Your task to perform on an android device: set default search engine in the chrome app Image 0: 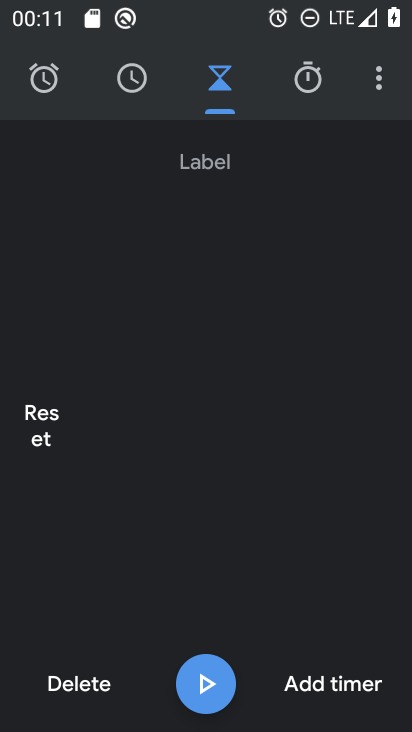
Step 0: press home button
Your task to perform on an android device: set default search engine in the chrome app Image 1: 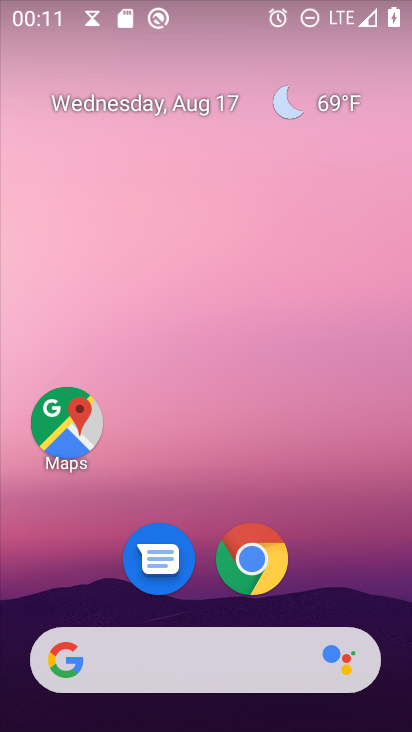
Step 1: click (254, 559)
Your task to perform on an android device: set default search engine in the chrome app Image 2: 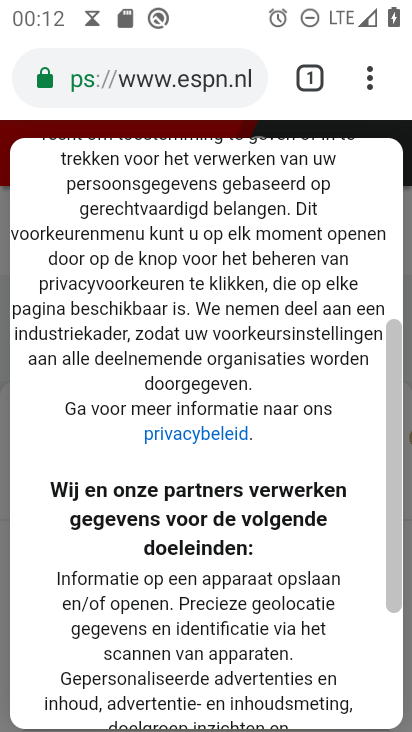
Step 2: click (378, 75)
Your task to perform on an android device: set default search engine in the chrome app Image 3: 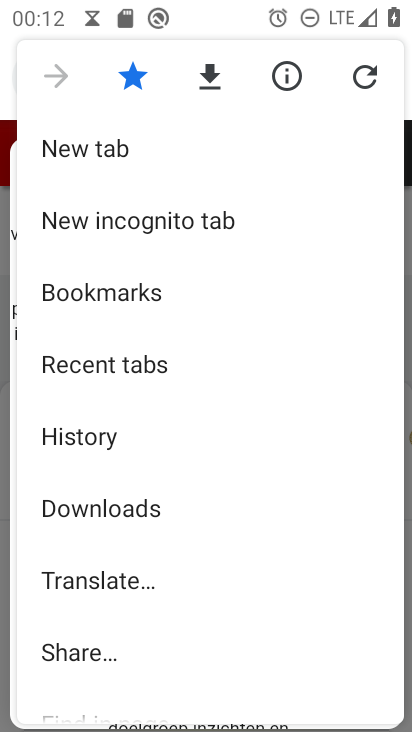
Step 3: drag from (128, 477) to (162, 410)
Your task to perform on an android device: set default search engine in the chrome app Image 4: 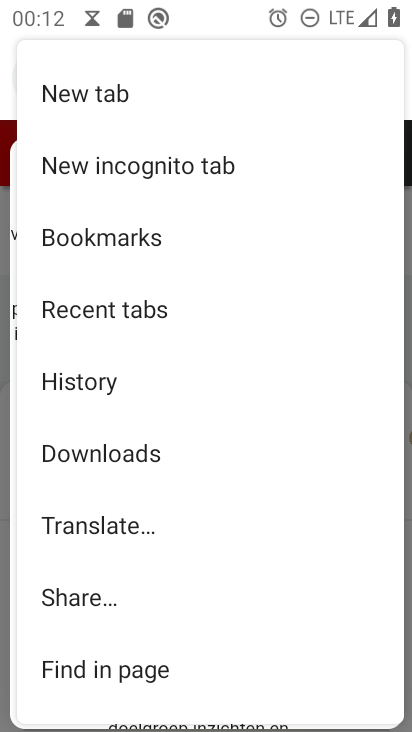
Step 4: drag from (138, 564) to (173, 493)
Your task to perform on an android device: set default search engine in the chrome app Image 5: 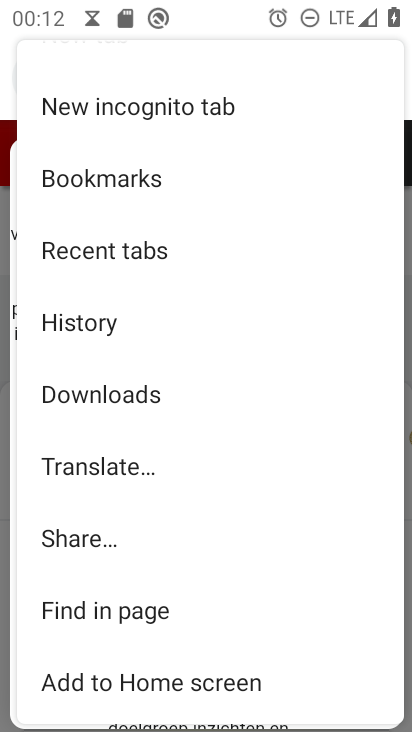
Step 5: drag from (141, 628) to (207, 531)
Your task to perform on an android device: set default search engine in the chrome app Image 6: 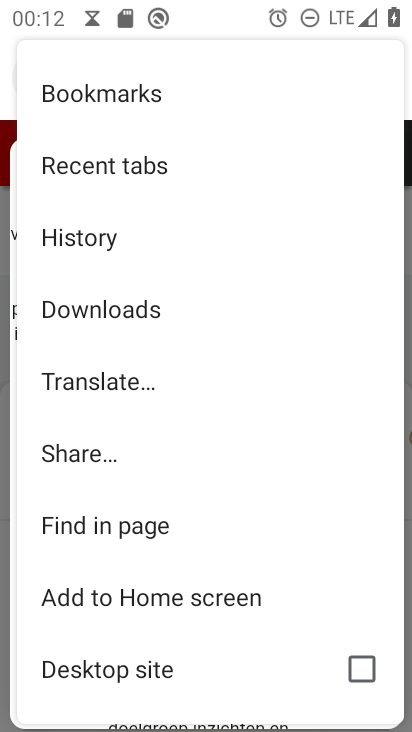
Step 6: drag from (171, 647) to (270, 510)
Your task to perform on an android device: set default search engine in the chrome app Image 7: 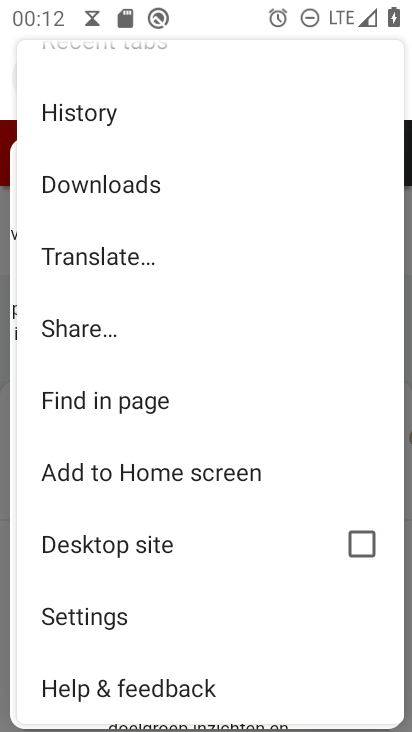
Step 7: click (104, 617)
Your task to perform on an android device: set default search engine in the chrome app Image 8: 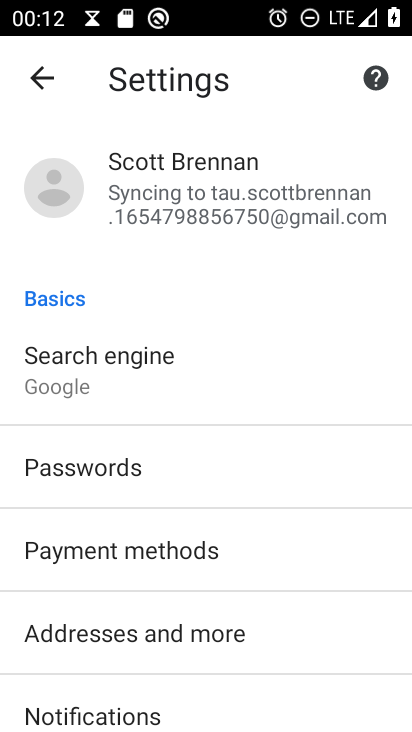
Step 8: drag from (135, 576) to (210, 480)
Your task to perform on an android device: set default search engine in the chrome app Image 9: 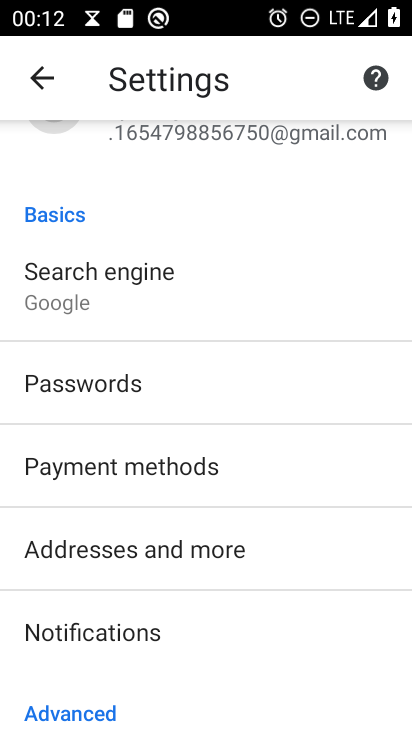
Step 9: click (171, 282)
Your task to perform on an android device: set default search engine in the chrome app Image 10: 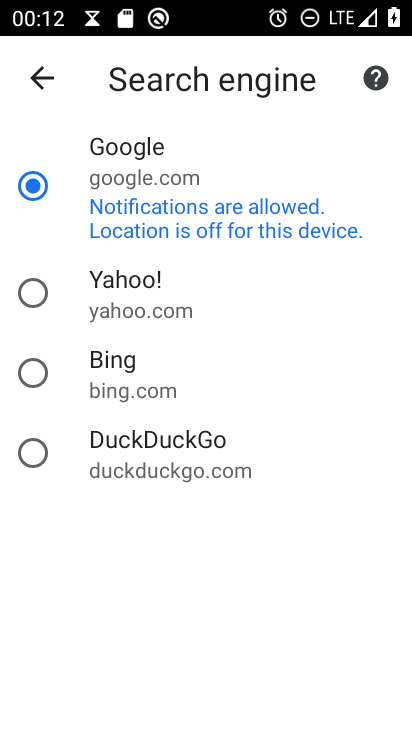
Step 10: click (30, 185)
Your task to perform on an android device: set default search engine in the chrome app Image 11: 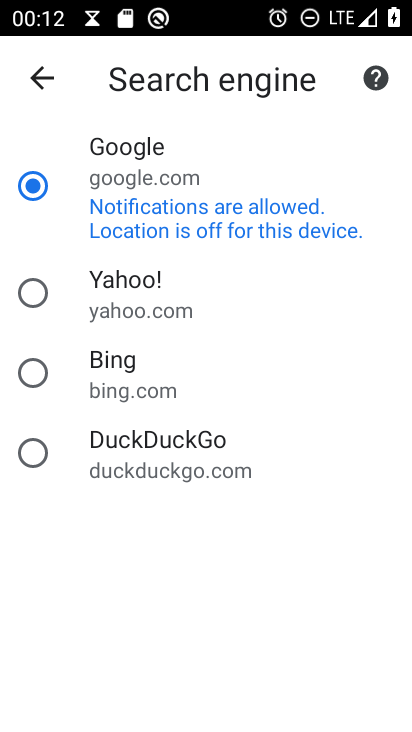
Step 11: task complete